Your task to perform on an android device: Show me popular videos on Youtube Image 0: 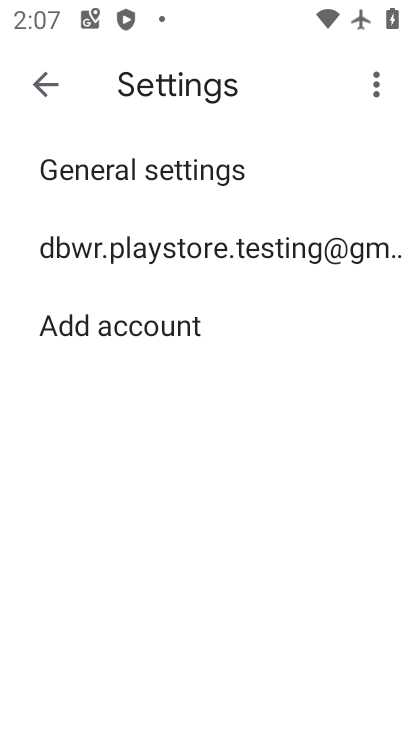
Step 0: press home button
Your task to perform on an android device: Show me popular videos on Youtube Image 1: 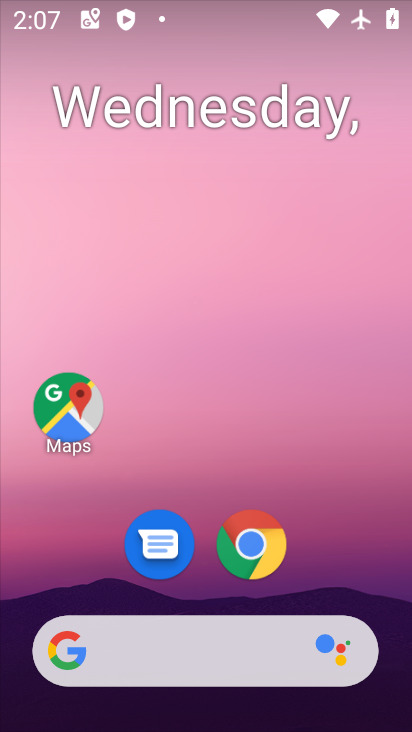
Step 1: drag from (380, 540) to (351, 184)
Your task to perform on an android device: Show me popular videos on Youtube Image 2: 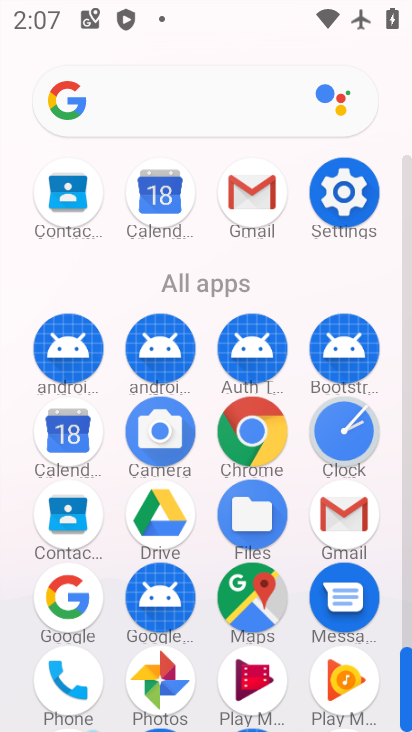
Step 2: drag from (402, 670) to (410, 712)
Your task to perform on an android device: Show me popular videos on Youtube Image 3: 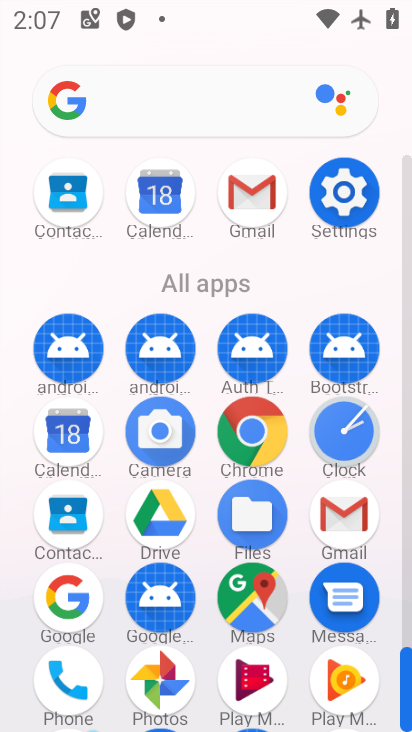
Step 3: drag from (405, 709) to (411, 553)
Your task to perform on an android device: Show me popular videos on Youtube Image 4: 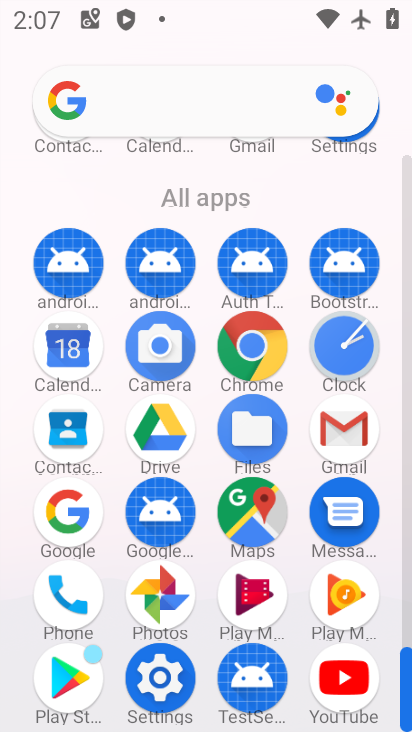
Step 4: click (411, 554)
Your task to perform on an android device: Show me popular videos on Youtube Image 5: 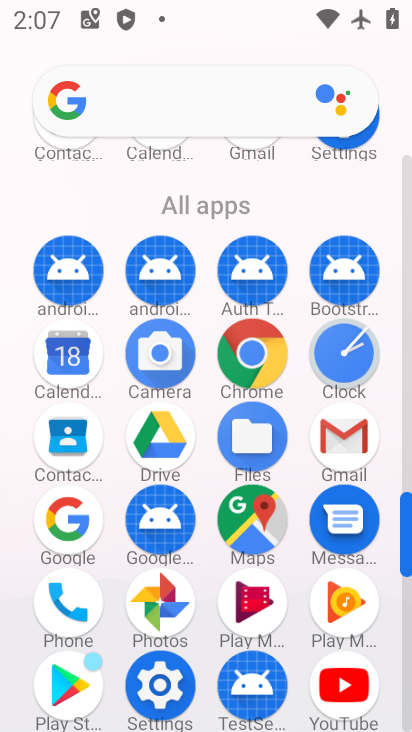
Step 5: click (359, 714)
Your task to perform on an android device: Show me popular videos on Youtube Image 6: 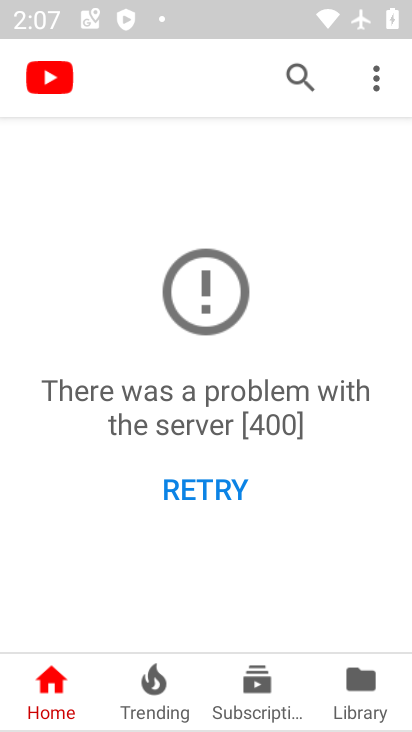
Step 6: click (236, 494)
Your task to perform on an android device: Show me popular videos on Youtube Image 7: 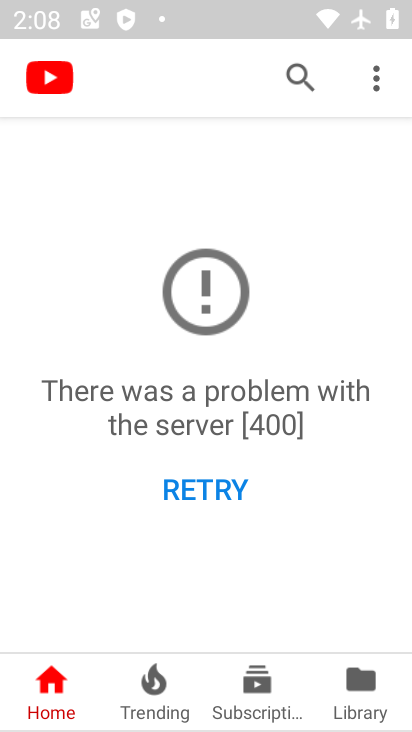
Step 7: task complete